Your task to perform on an android device: Do I have any events today? Image 0: 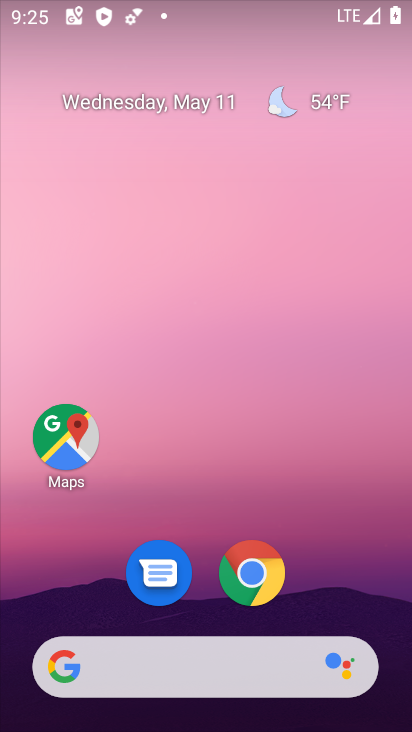
Step 0: drag from (278, 594) to (310, 27)
Your task to perform on an android device: Do I have any events today? Image 1: 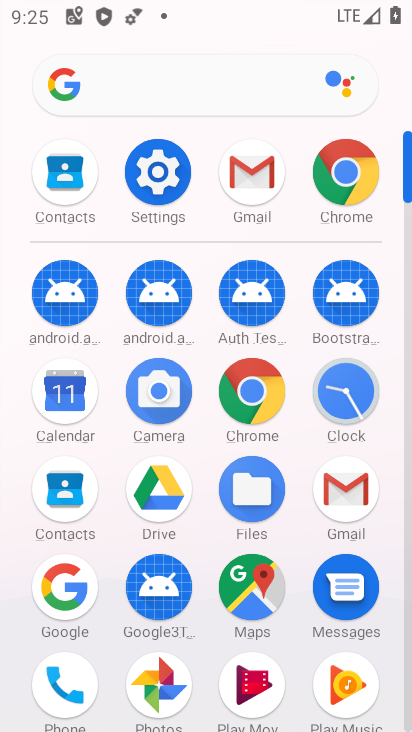
Step 1: click (48, 419)
Your task to perform on an android device: Do I have any events today? Image 2: 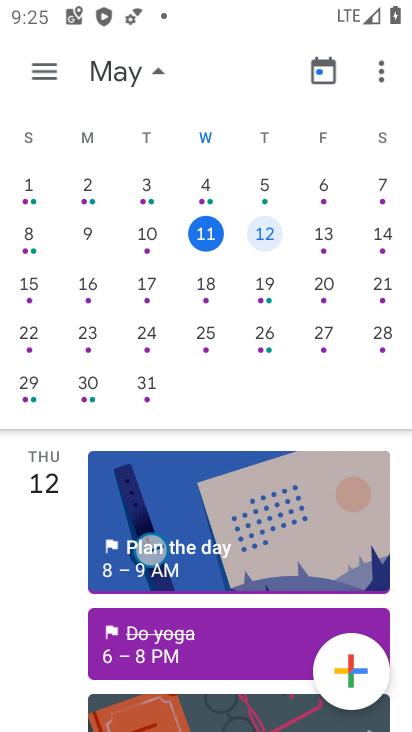
Step 2: click (278, 237)
Your task to perform on an android device: Do I have any events today? Image 3: 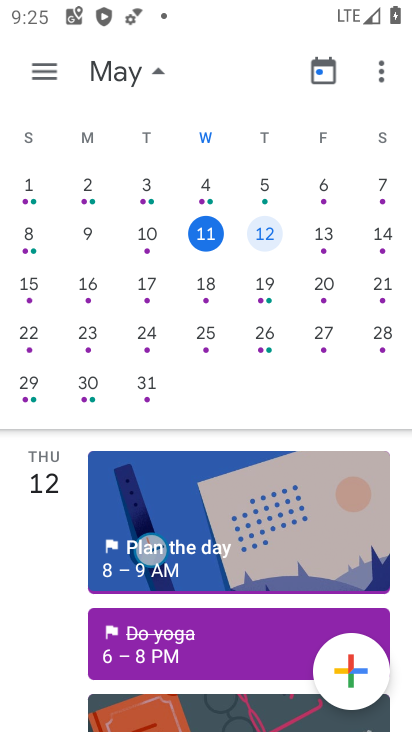
Step 3: click (266, 232)
Your task to perform on an android device: Do I have any events today? Image 4: 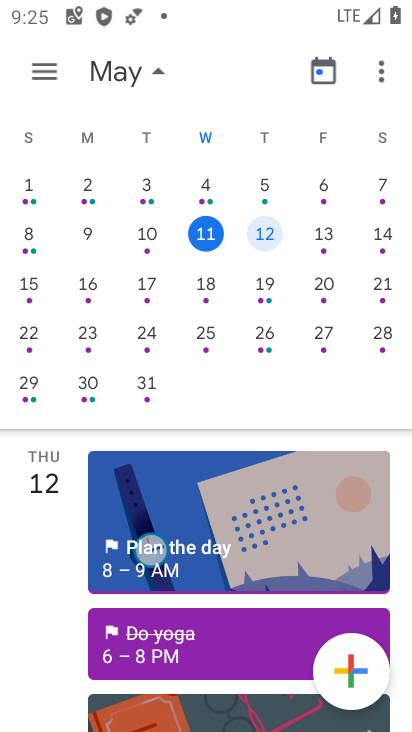
Step 4: task complete